Your task to perform on an android device: see tabs open on other devices in the chrome app Image 0: 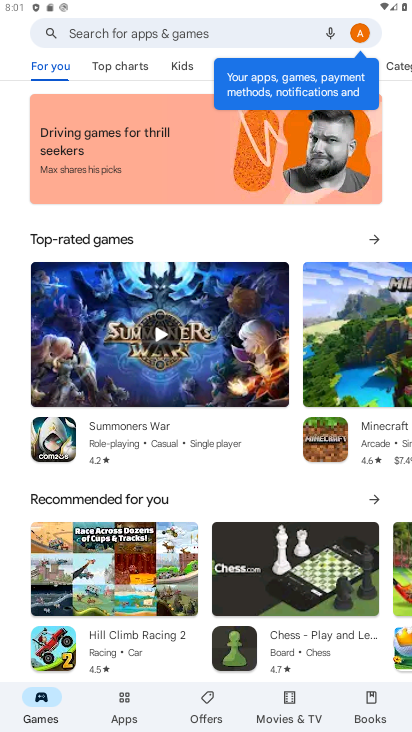
Step 0: press home button
Your task to perform on an android device: see tabs open on other devices in the chrome app Image 1: 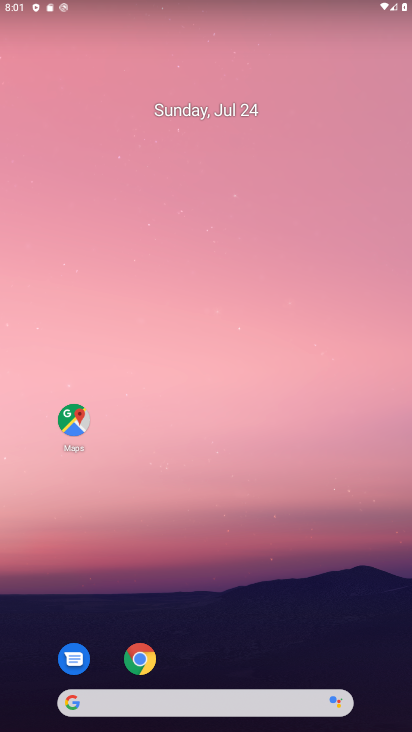
Step 1: click (139, 658)
Your task to perform on an android device: see tabs open on other devices in the chrome app Image 2: 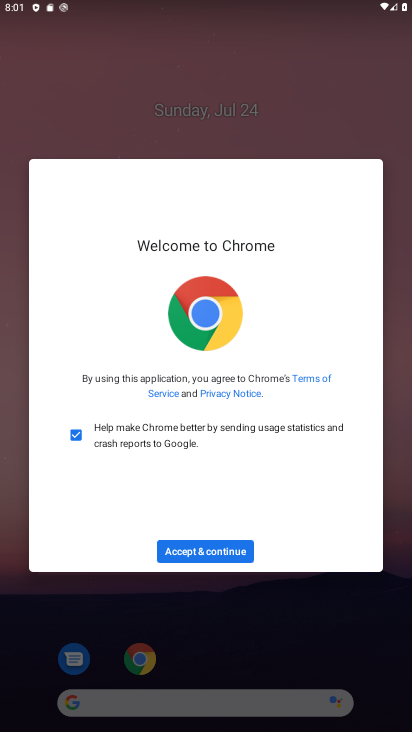
Step 2: click (218, 539)
Your task to perform on an android device: see tabs open on other devices in the chrome app Image 3: 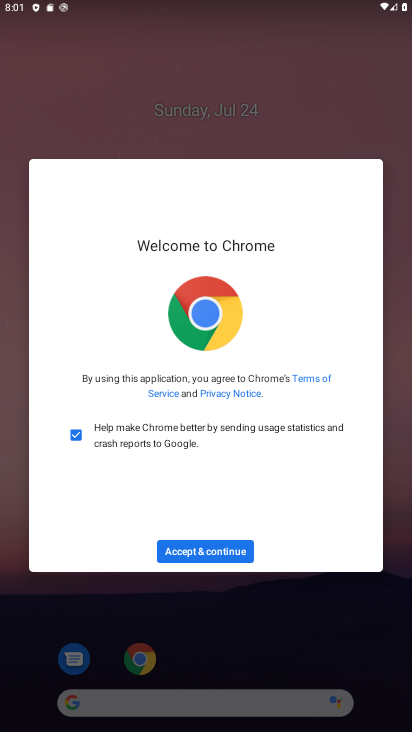
Step 3: click (213, 553)
Your task to perform on an android device: see tabs open on other devices in the chrome app Image 4: 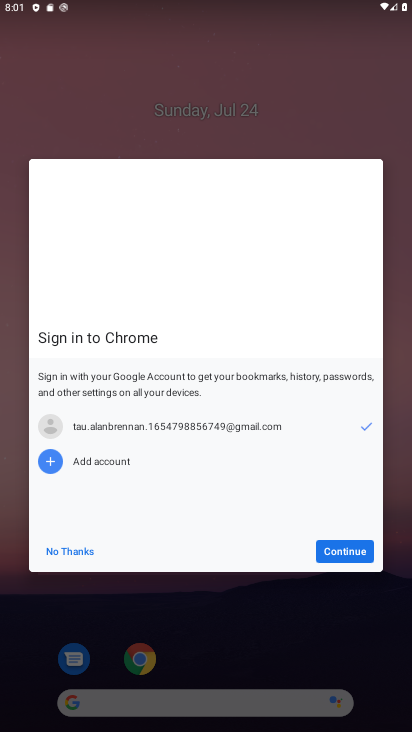
Step 4: click (357, 553)
Your task to perform on an android device: see tabs open on other devices in the chrome app Image 5: 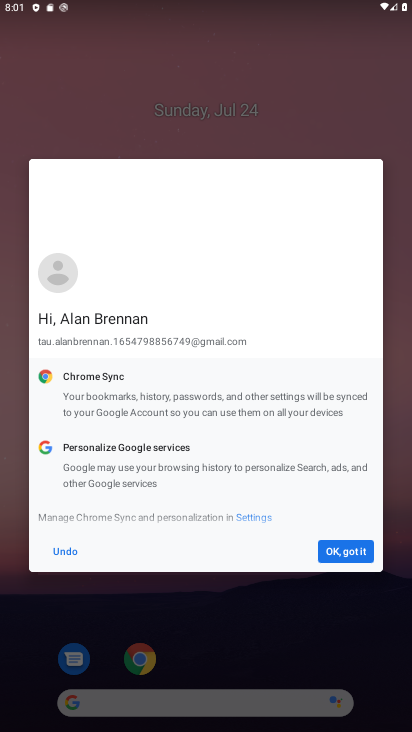
Step 5: click (357, 555)
Your task to perform on an android device: see tabs open on other devices in the chrome app Image 6: 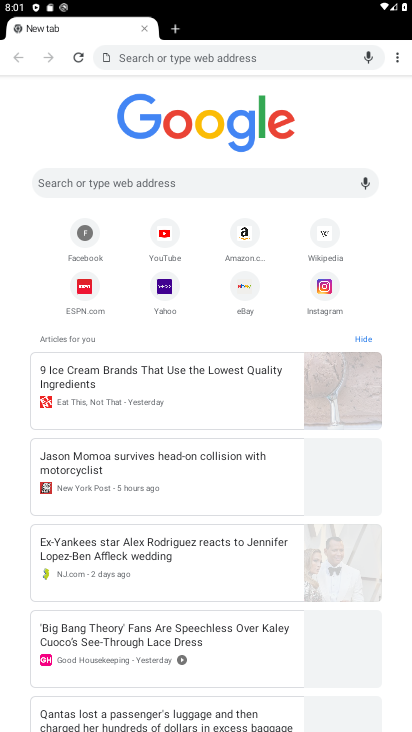
Step 6: click (396, 55)
Your task to perform on an android device: see tabs open on other devices in the chrome app Image 7: 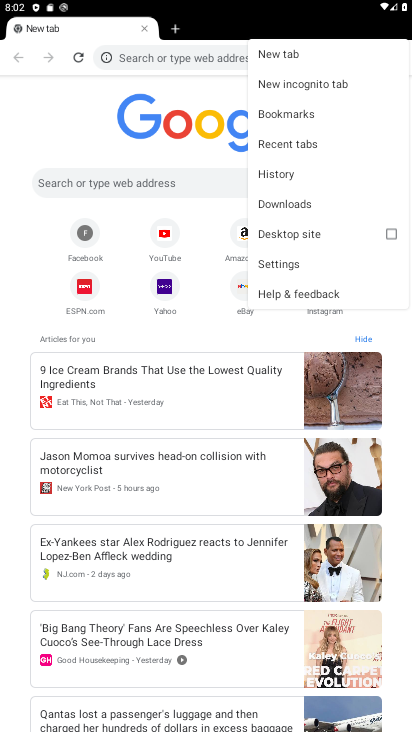
Step 7: click (292, 143)
Your task to perform on an android device: see tabs open on other devices in the chrome app Image 8: 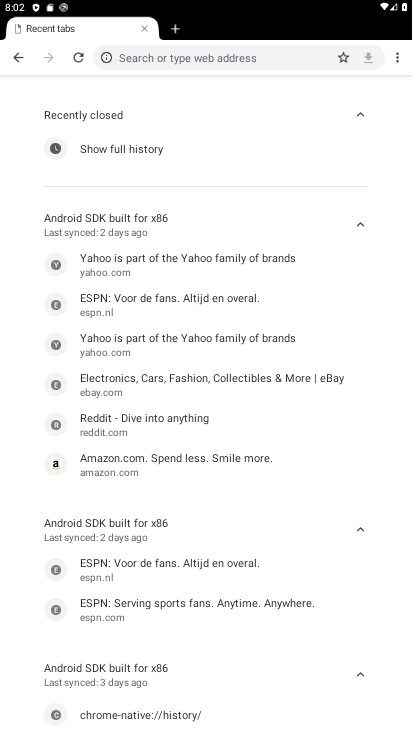
Step 8: task complete